Your task to perform on an android device: Open settings Image 0: 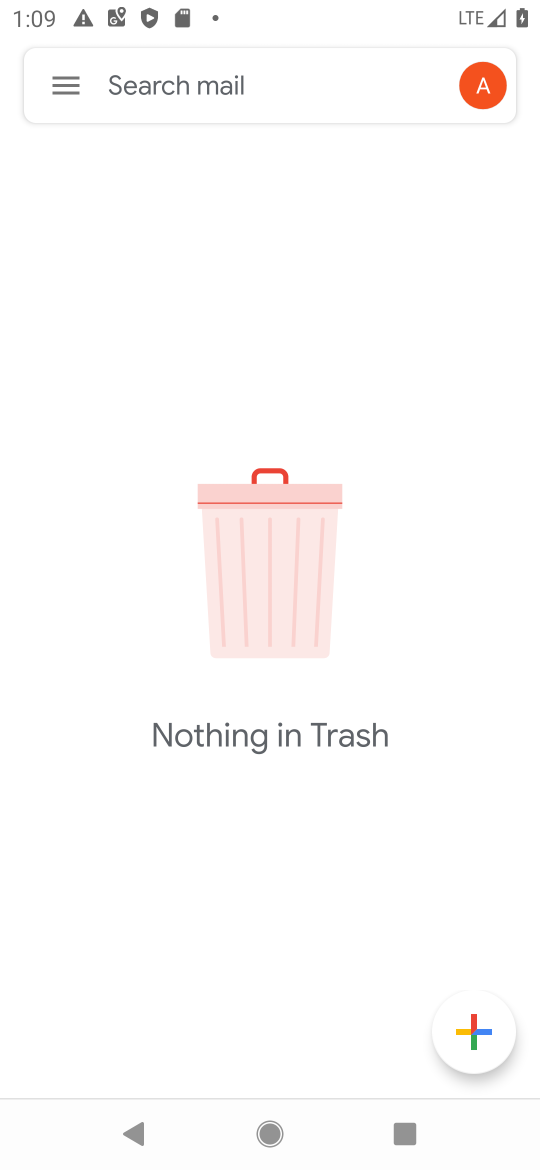
Step 0: press home button
Your task to perform on an android device: Open settings Image 1: 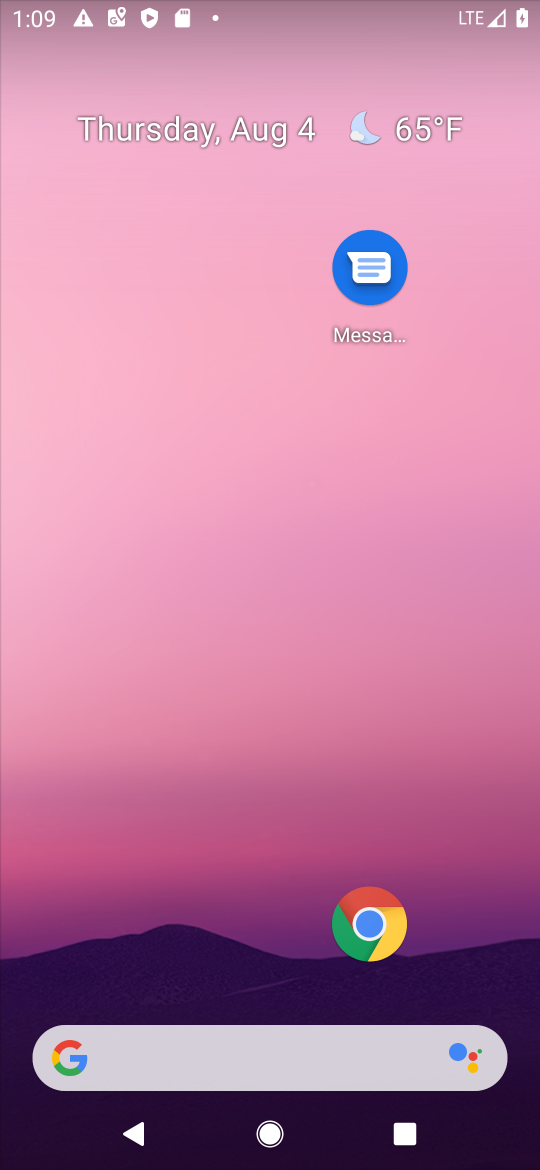
Step 1: drag from (73, 1006) to (229, 125)
Your task to perform on an android device: Open settings Image 2: 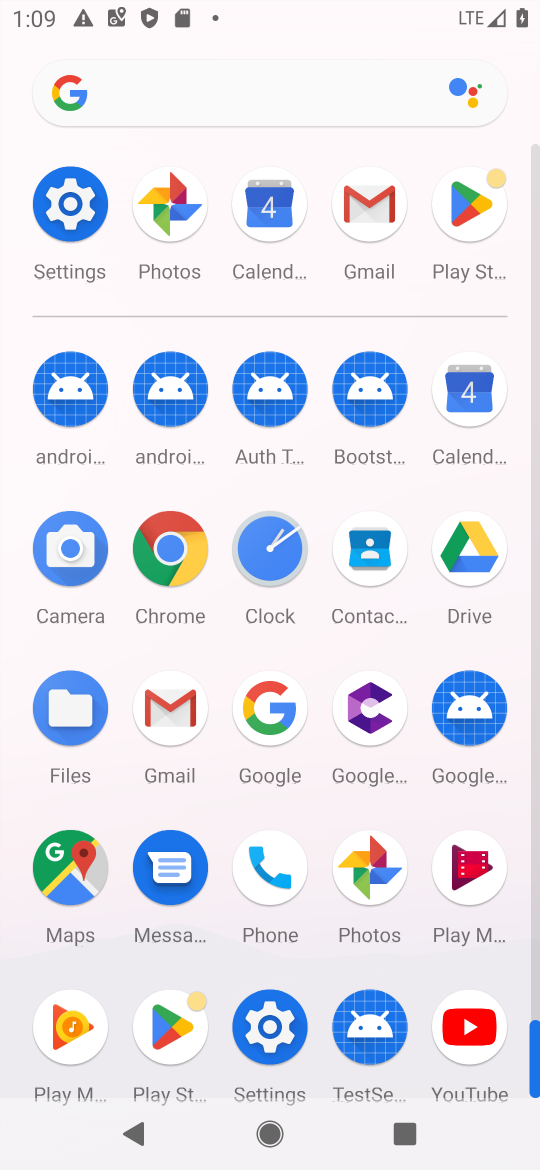
Step 2: click (271, 1049)
Your task to perform on an android device: Open settings Image 3: 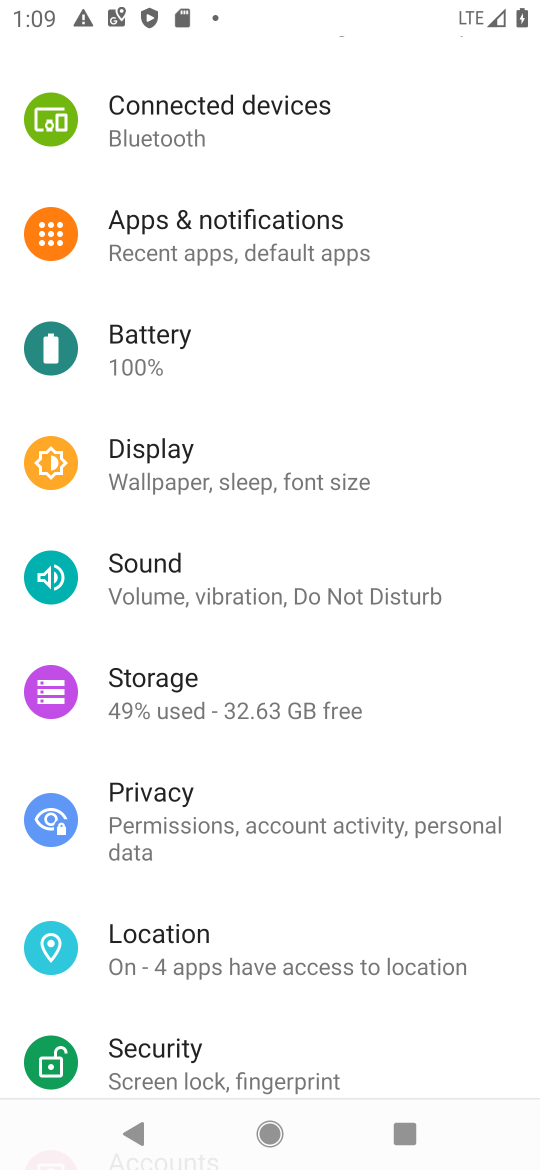
Step 3: task complete